Your task to perform on an android device: Go to Amazon Image 0: 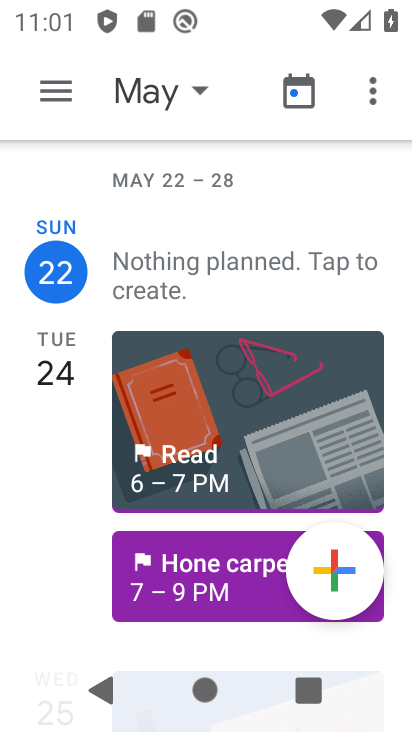
Step 0: press home button
Your task to perform on an android device: Go to Amazon Image 1: 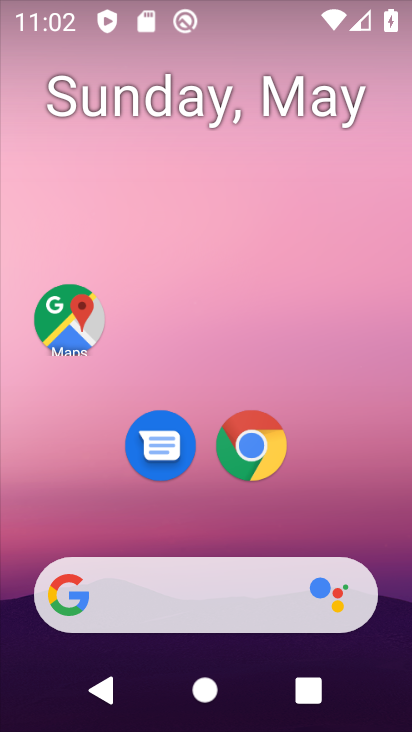
Step 1: click (275, 442)
Your task to perform on an android device: Go to Amazon Image 2: 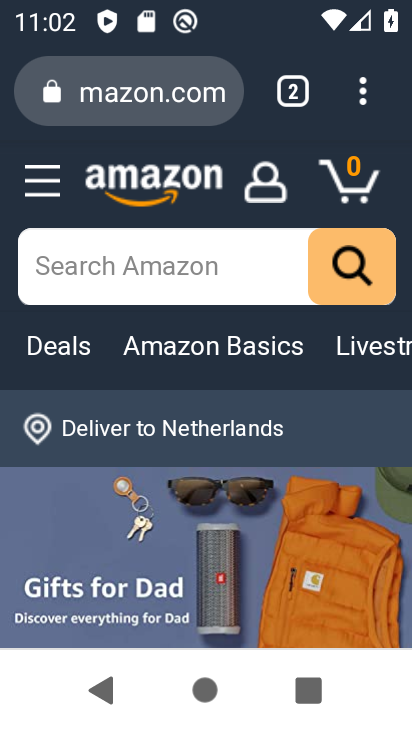
Step 2: task complete